Your task to perform on an android device: Search for sushi restaurants on Maps Image 0: 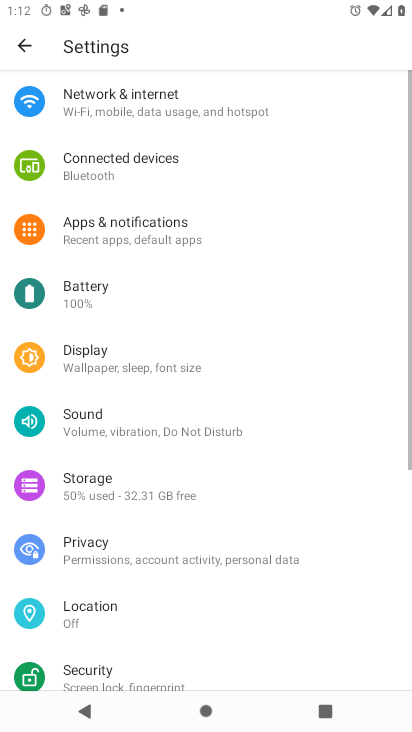
Step 0: press home button
Your task to perform on an android device: Search for sushi restaurants on Maps Image 1: 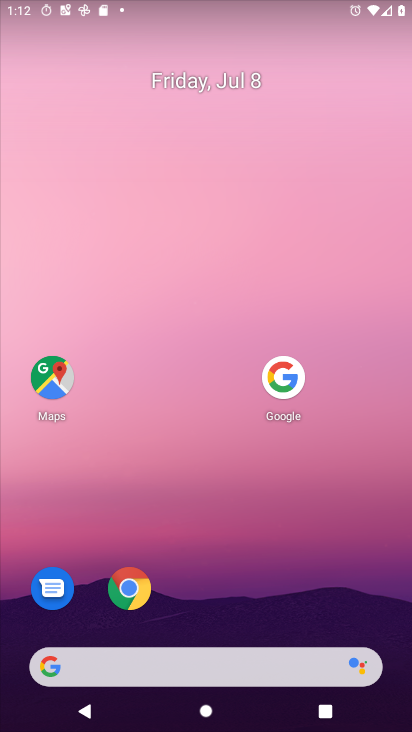
Step 1: click (42, 384)
Your task to perform on an android device: Search for sushi restaurants on Maps Image 2: 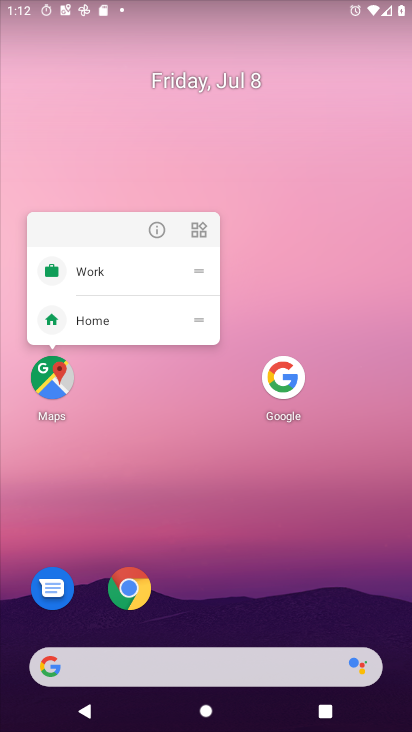
Step 2: click (42, 384)
Your task to perform on an android device: Search for sushi restaurants on Maps Image 3: 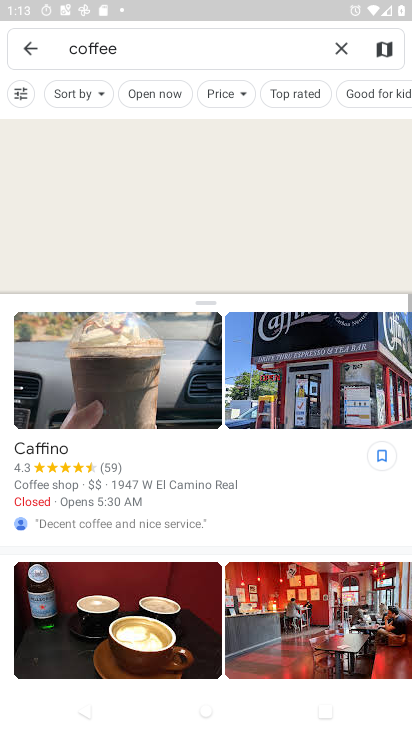
Step 3: click (336, 45)
Your task to perform on an android device: Search for sushi restaurants on Maps Image 4: 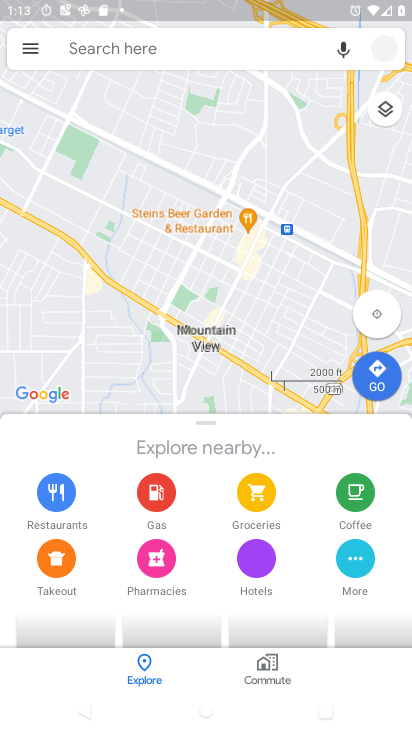
Step 4: click (148, 47)
Your task to perform on an android device: Search for sushi restaurants on Maps Image 5: 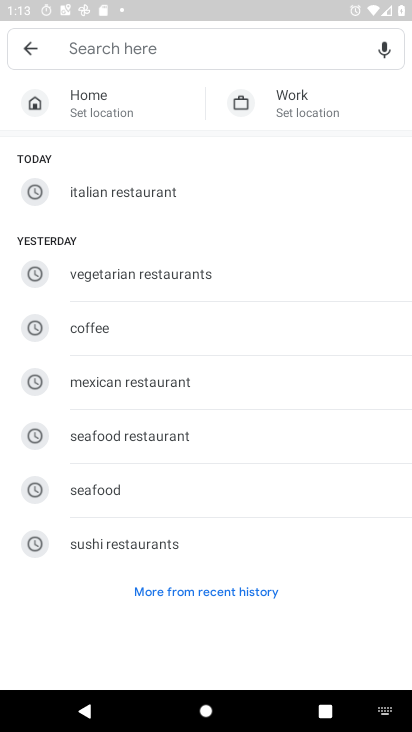
Step 5: click (127, 538)
Your task to perform on an android device: Search for sushi restaurants on Maps Image 6: 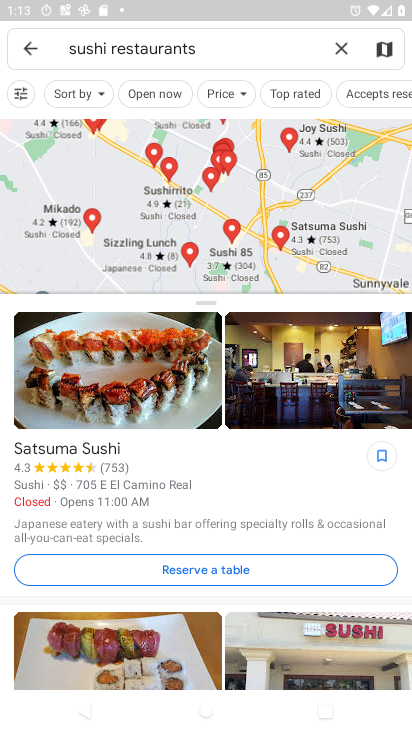
Step 6: task complete